Your task to perform on an android device: Open the calendar app, open the side menu, and click the "Day" option Image 0: 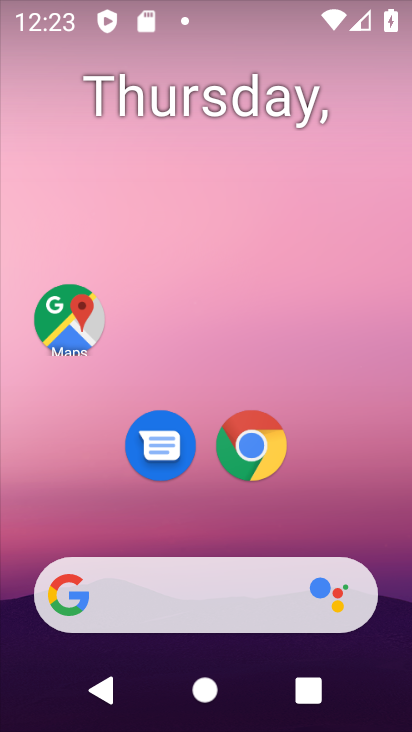
Step 0: drag from (343, 501) to (365, 148)
Your task to perform on an android device: Open the calendar app, open the side menu, and click the "Day" option Image 1: 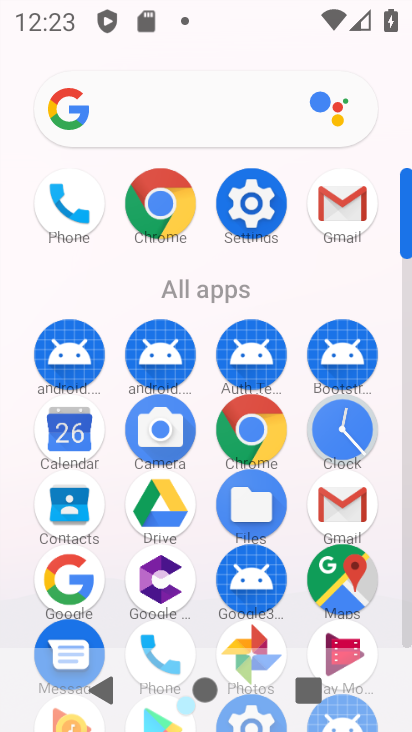
Step 1: click (59, 432)
Your task to perform on an android device: Open the calendar app, open the side menu, and click the "Day" option Image 2: 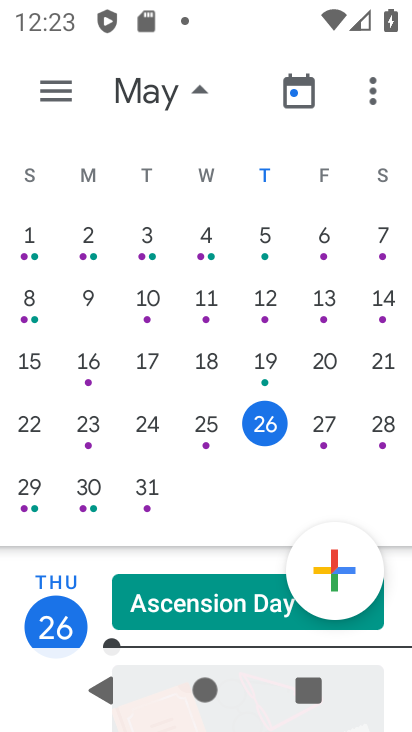
Step 2: click (60, 99)
Your task to perform on an android device: Open the calendar app, open the side menu, and click the "Day" option Image 3: 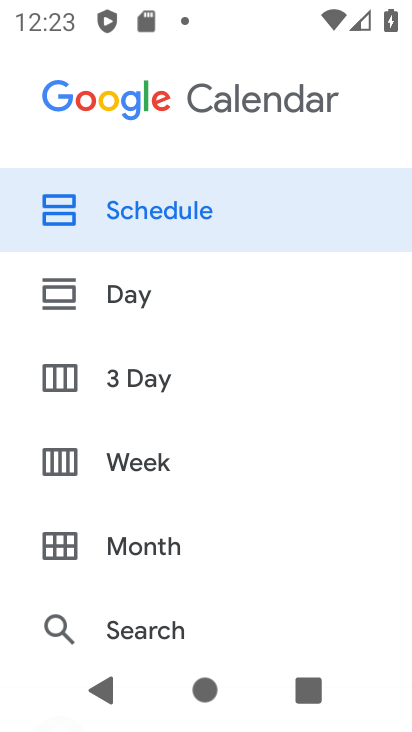
Step 3: click (139, 295)
Your task to perform on an android device: Open the calendar app, open the side menu, and click the "Day" option Image 4: 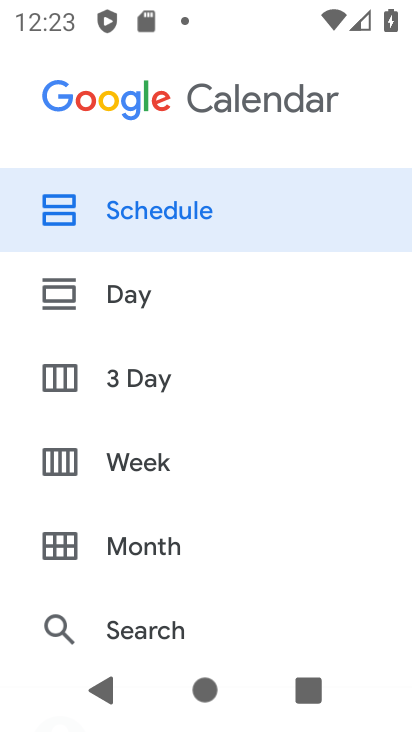
Step 4: click (103, 315)
Your task to perform on an android device: Open the calendar app, open the side menu, and click the "Day" option Image 5: 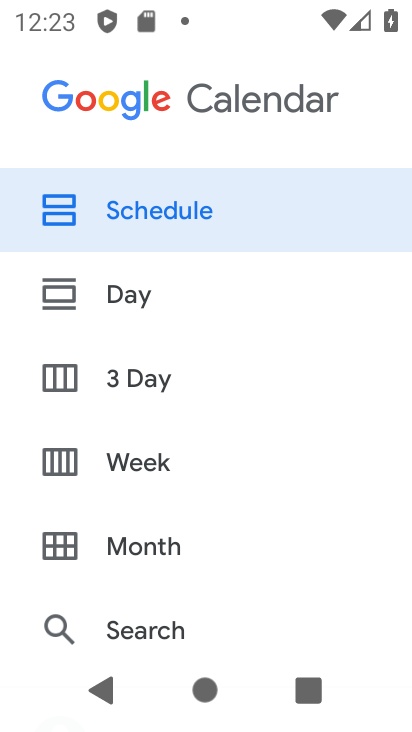
Step 5: click (156, 296)
Your task to perform on an android device: Open the calendar app, open the side menu, and click the "Day" option Image 6: 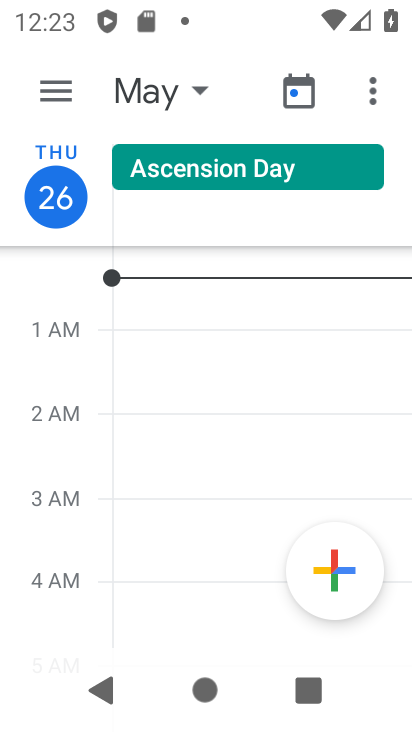
Step 6: task complete